Your task to perform on an android device: Show me recent news Image 0: 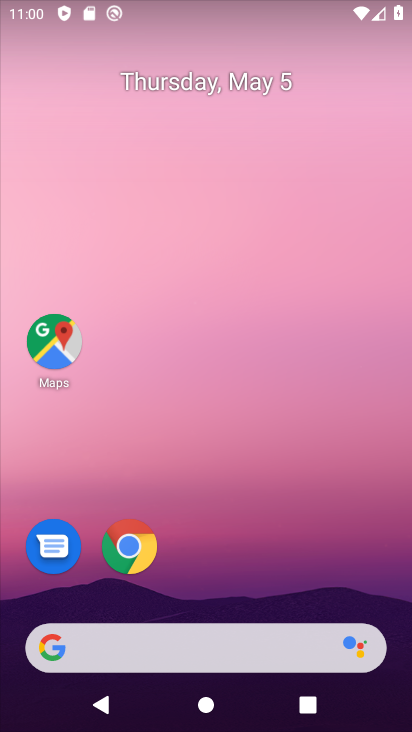
Step 0: click (235, 642)
Your task to perform on an android device: Show me recent news Image 1: 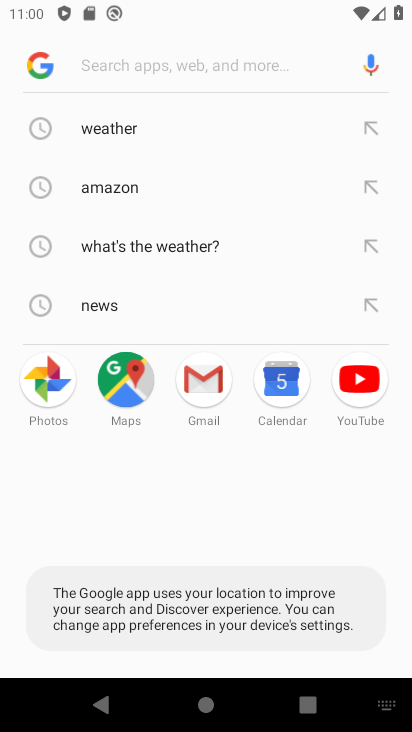
Step 1: click (88, 306)
Your task to perform on an android device: Show me recent news Image 2: 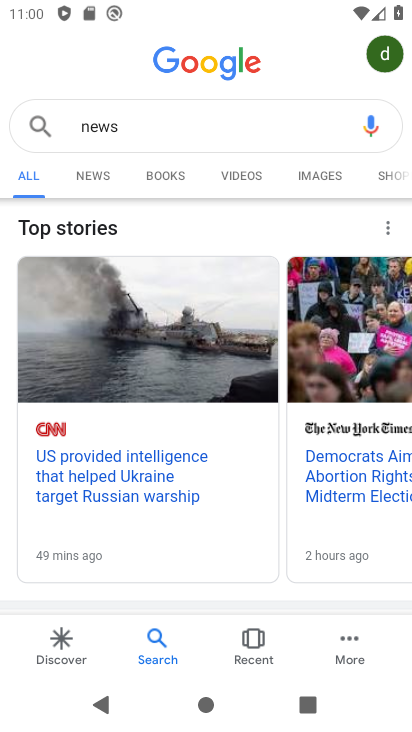
Step 2: task complete